Your task to perform on an android device: Go to wifi settings Image 0: 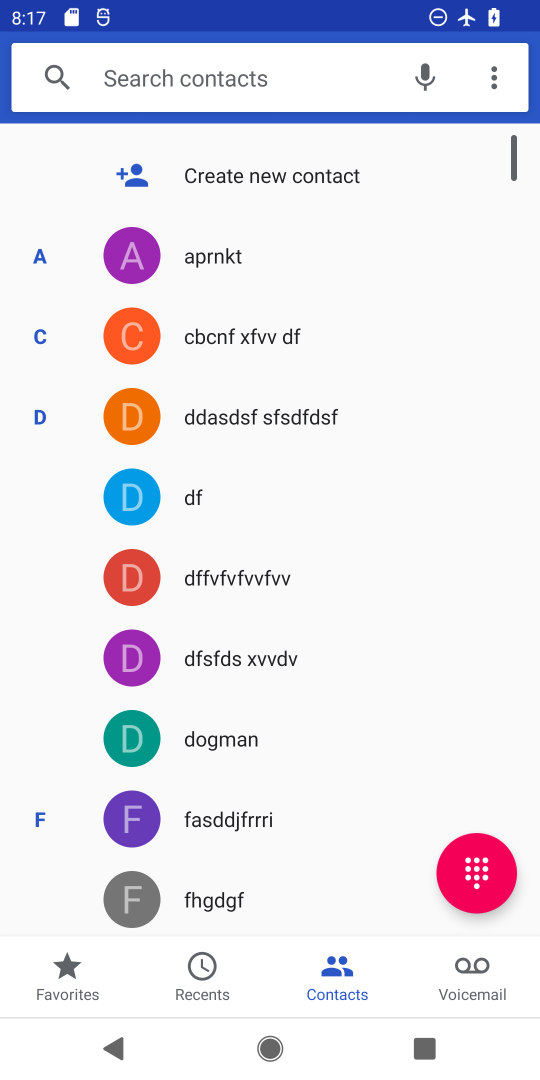
Step 0: press home button
Your task to perform on an android device: Go to wifi settings Image 1: 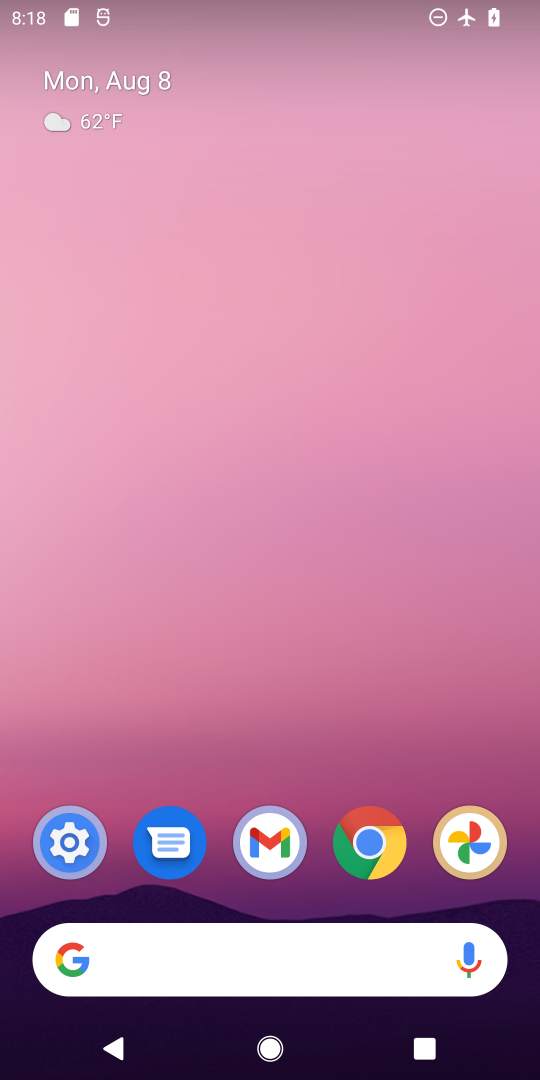
Step 1: drag from (313, 888) to (302, 150)
Your task to perform on an android device: Go to wifi settings Image 2: 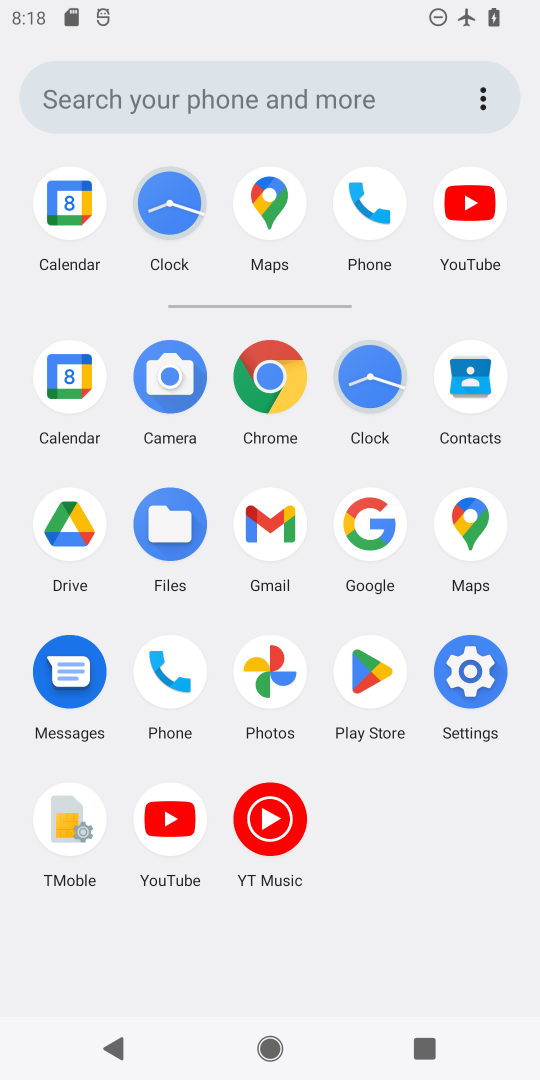
Step 2: click (455, 678)
Your task to perform on an android device: Go to wifi settings Image 3: 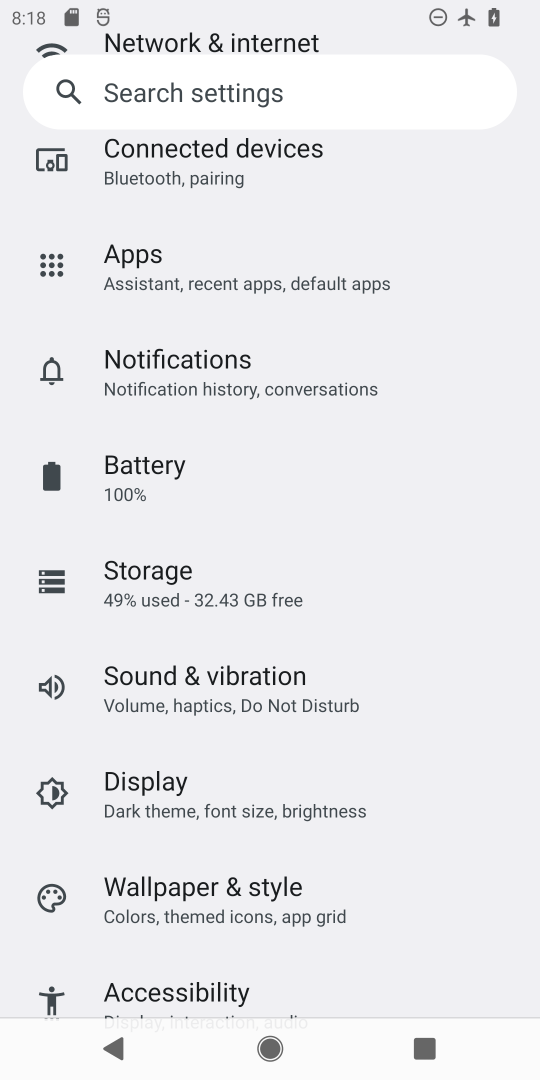
Step 3: drag from (245, 332) to (290, 1046)
Your task to perform on an android device: Go to wifi settings Image 4: 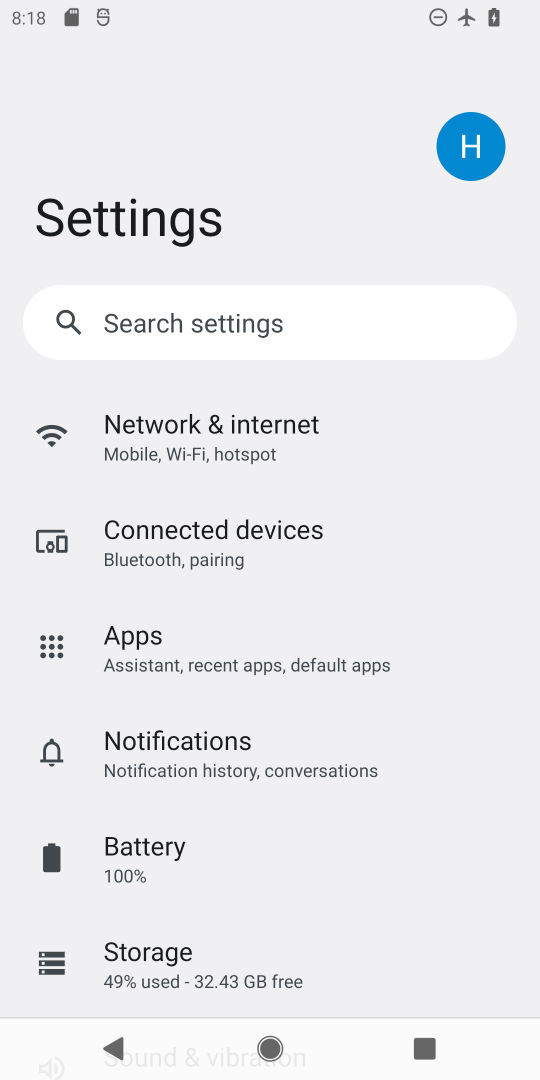
Step 4: click (177, 423)
Your task to perform on an android device: Go to wifi settings Image 5: 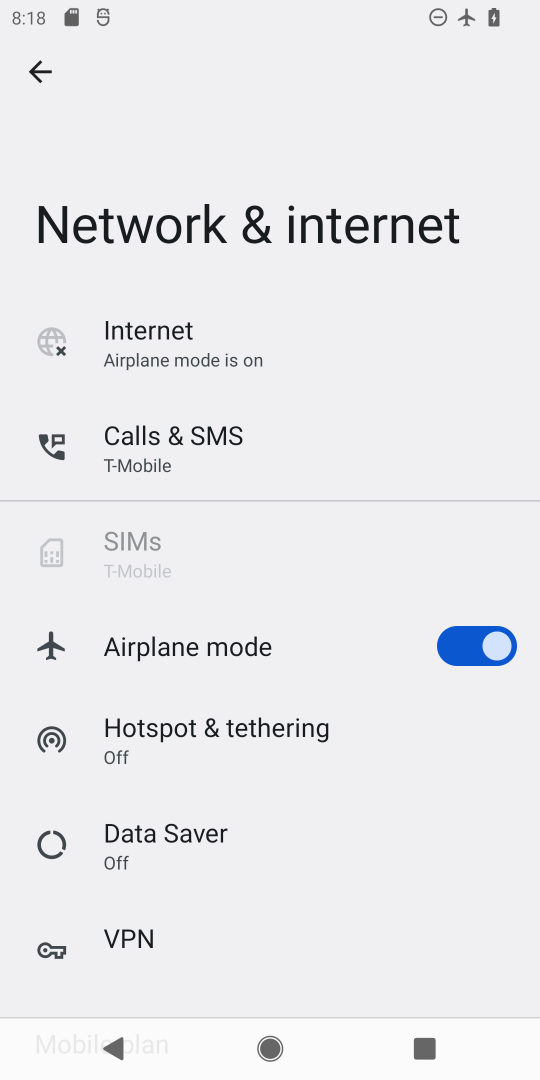
Step 5: click (203, 354)
Your task to perform on an android device: Go to wifi settings Image 6: 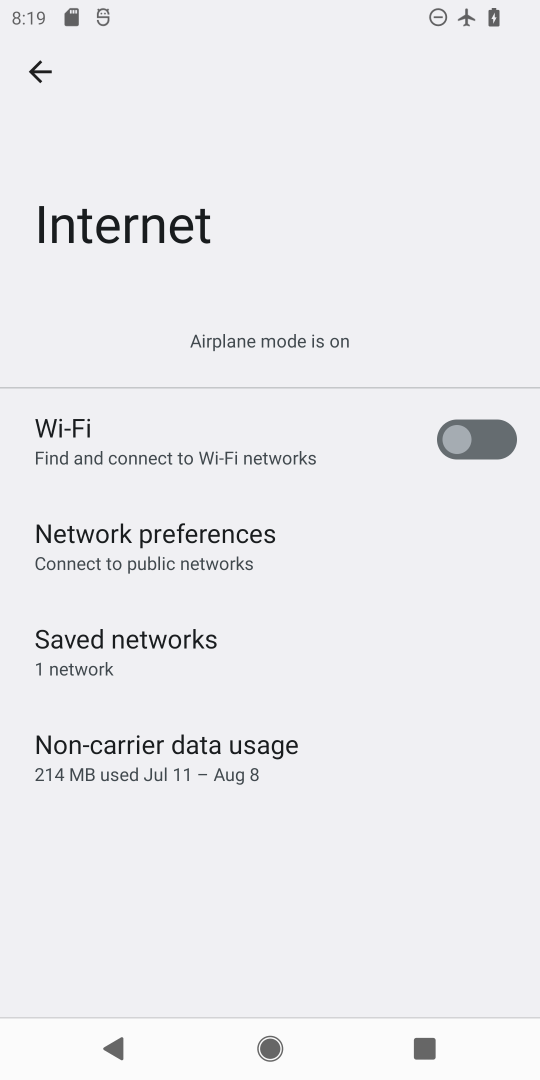
Step 6: task complete